Your task to perform on an android device: Search for pizza restaurants on Maps Image 0: 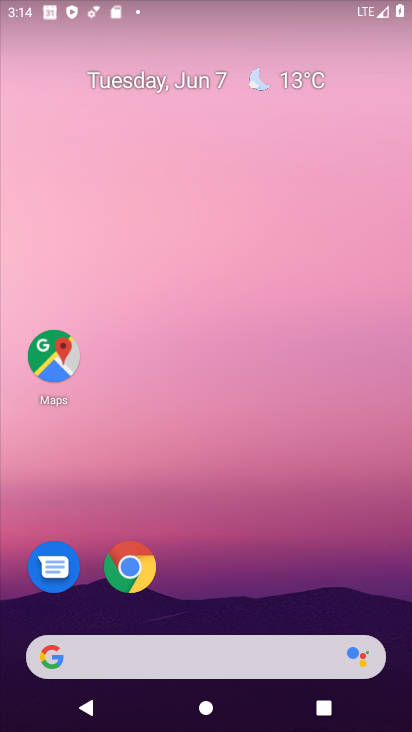
Step 0: drag from (50, 15) to (126, 571)
Your task to perform on an android device: Search for pizza restaurants on Maps Image 1: 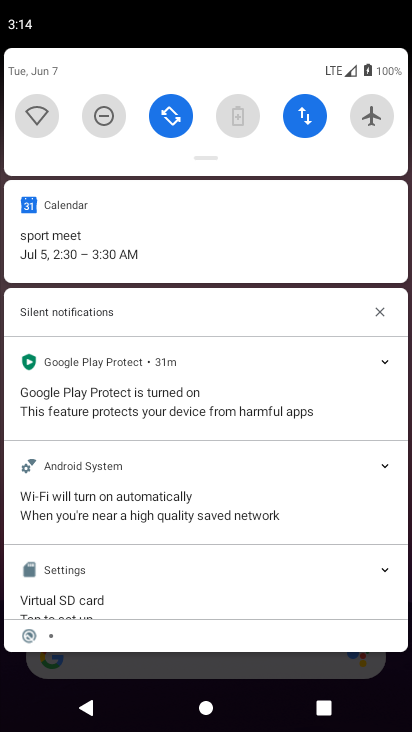
Step 1: drag from (221, 642) to (353, 160)
Your task to perform on an android device: Search for pizza restaurants on Maps Image 2: 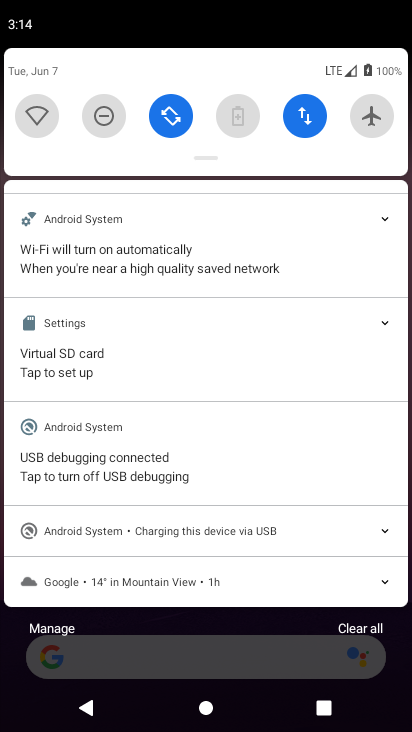
Step 2: drag from (162, 613) to (311, 10)
Your task to perform on an android device: Search for pizza restaurants on Maps Image 3: 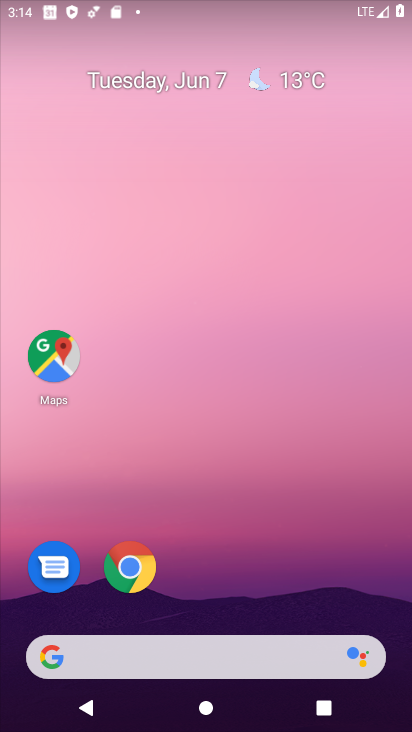
Step 3: click (39, 372)
Your task to perform on an android device: Search for pizza restaurants on Maps Image 4: 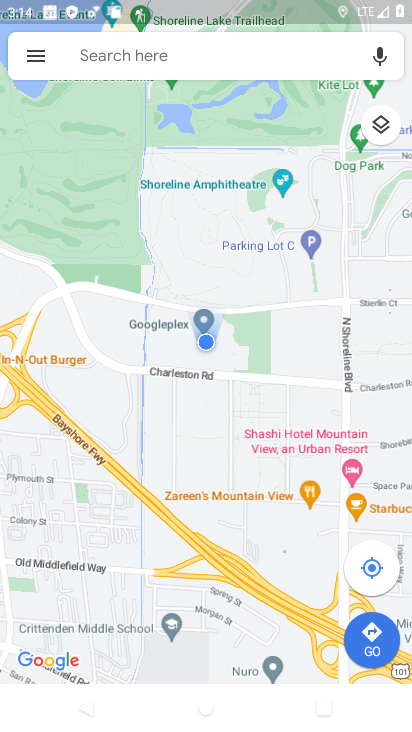
Step 4: click (96, 76)
Your task to perform on an android device: Search for pizza restaurants on Maps Image 5: 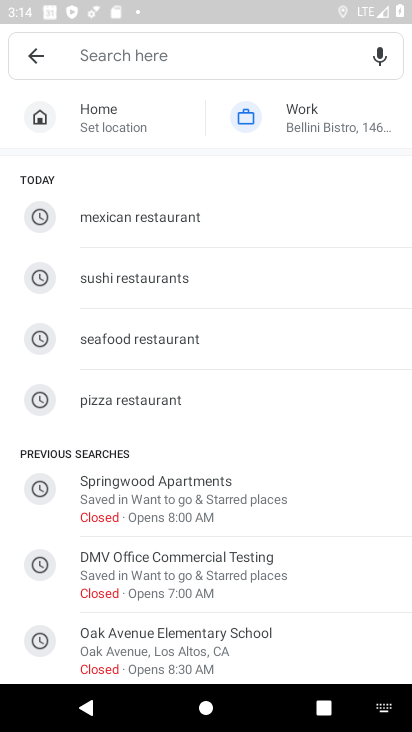
Step 5: click (131, 396)
Your task to perform on an android device: Search for pizza restaurants on Maps Image 6: 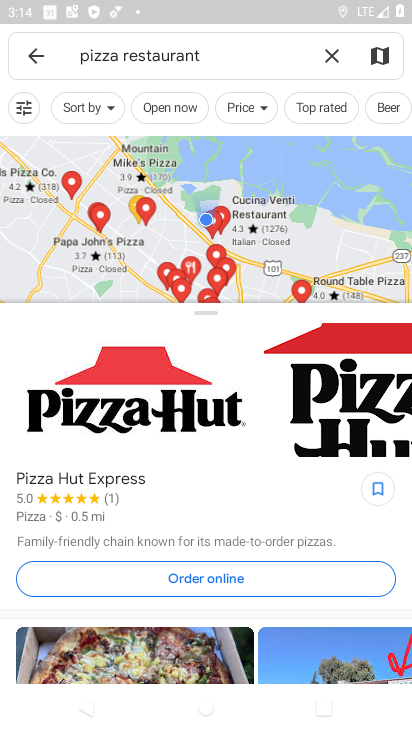
Step 6: task complete